Your task to perform on an android device: change the clock display to analog Image 0: 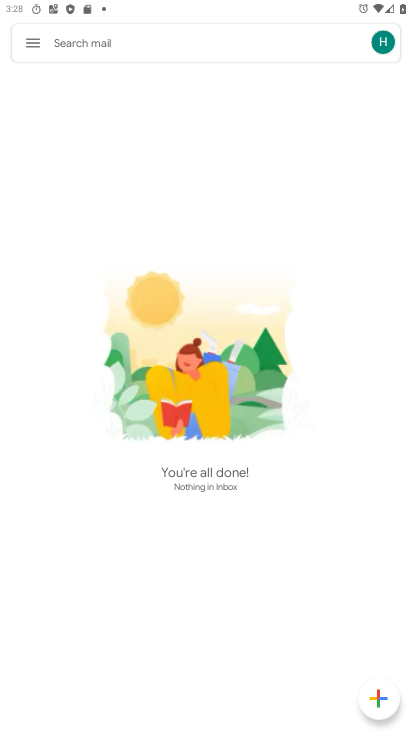
Step 0: press home button
Your task to perform on an android device: change the clock display to analog Image 1: 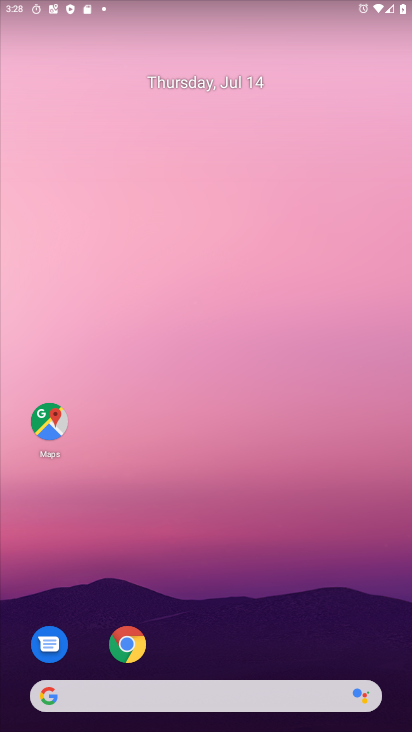
Step 1: drag from (19, 712) to (369, 22)
Your task to perform on an android device: change the clock display to analog Image 2: 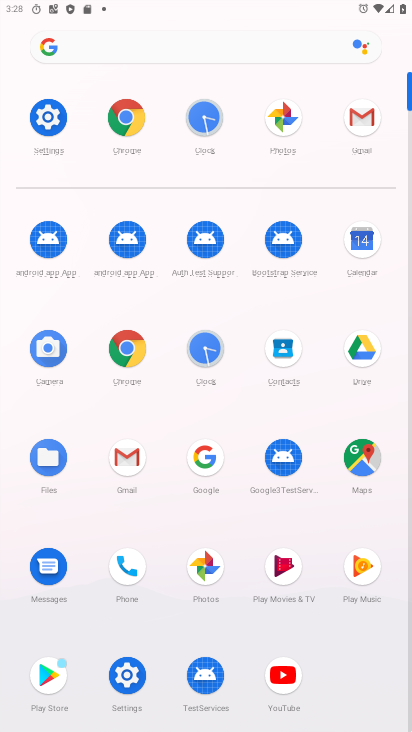
Step 2: click (199, 352)
Your task to perform on an android device: change the clock display to analog Image 3: 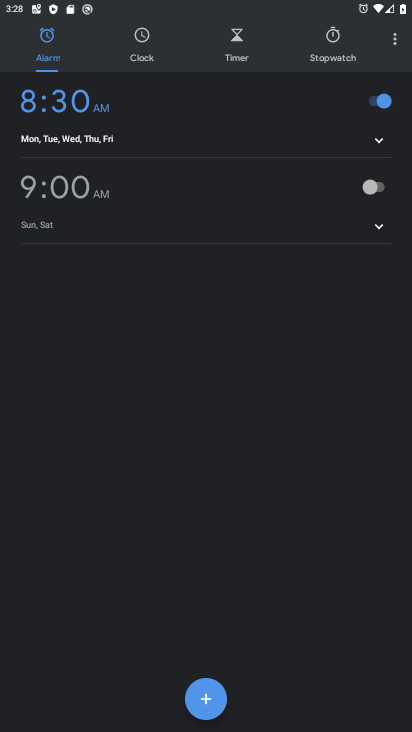
Step 3: click (402, 41)
Your task to perform on an android device: change the clock display to analog Image 4: 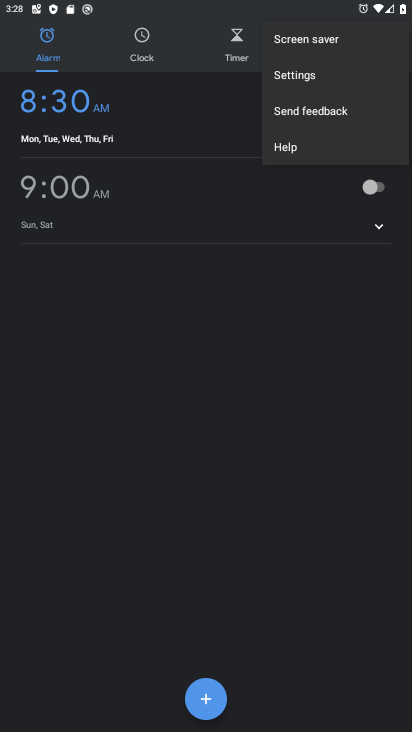
Step 4: click (323, 81)
Your task to perform on an android device: change the clock display to analog Image 5: 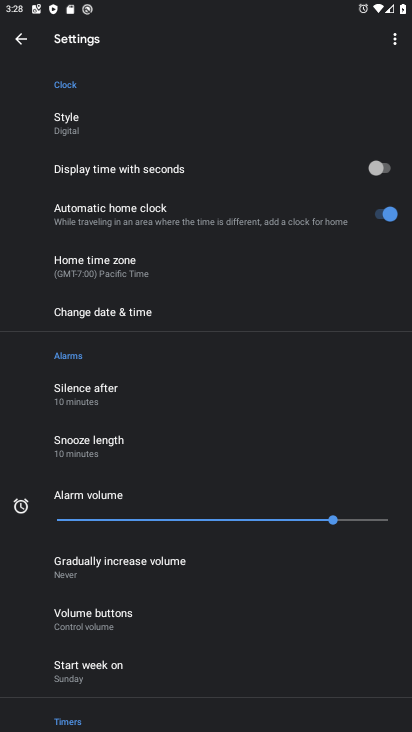
Step 5: click (82, 124)
Your task to perform on an android device: change the clock display to analog Image 6: 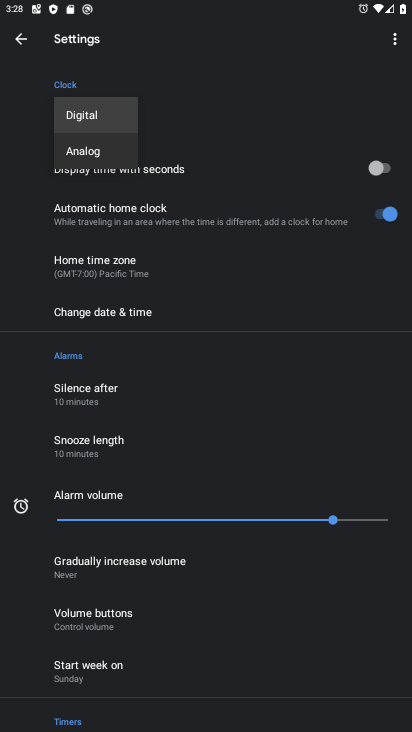
Step 6: click (84, 160)
Your task to perform on an android device: change the clock display to analog Image 7: 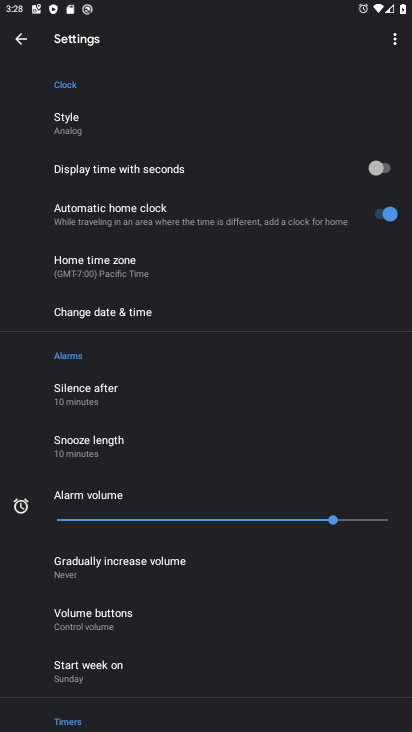
Step 7: task complete